Your task to perform on an android device: open app "Adobe Acrobat Reader" Image 0: 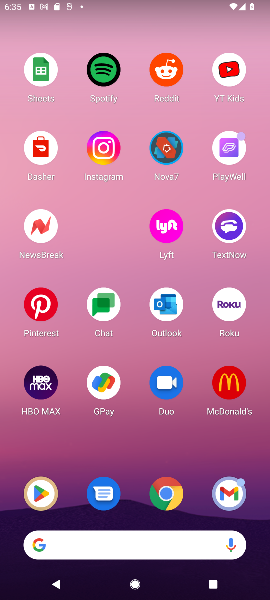
Step 0: click (45, 497)
Your task to perform on an android device: open app "Adobe Acrobat Reader" Image 1: 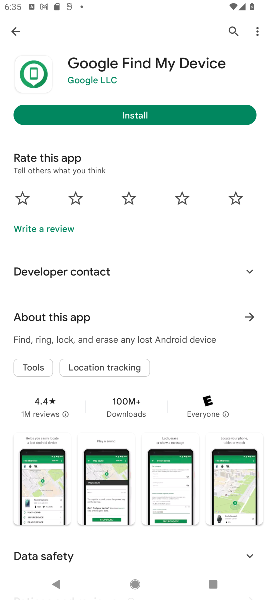
Step 1: click (233, 28)
Your task to perform on an android device: open app "Adobe Acrobat Reader" Image 2: 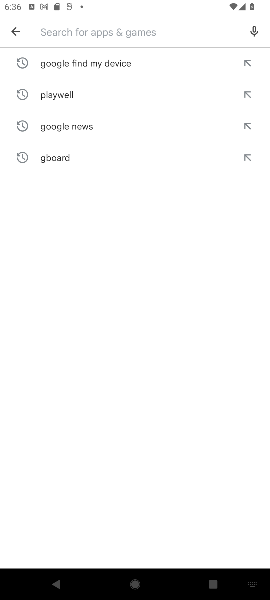
Step 2: type "Adobe  Acrobat Reader"
Your task to perform on an android device: open app "Adobe Acrobat Reader" Image 3: 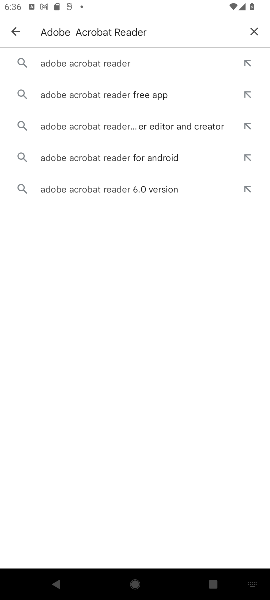
Step 3: click (60, 68)
Your task to perform on an android device: open app "Adobe Acrobat Reader" Image 4: 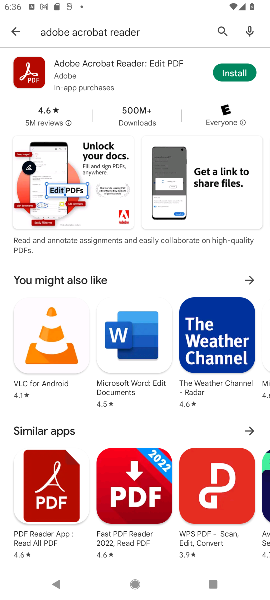
Step 4: click (122, 65)
Your task to perform on an android device: open app "Adobe Acrobat Reader" Image 5: 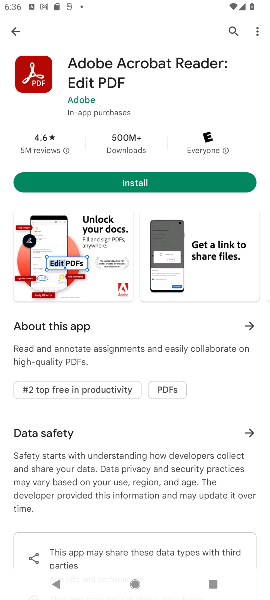
Step 5: task complete